Your task to perform on an android device: Go to battery settings Image 0: 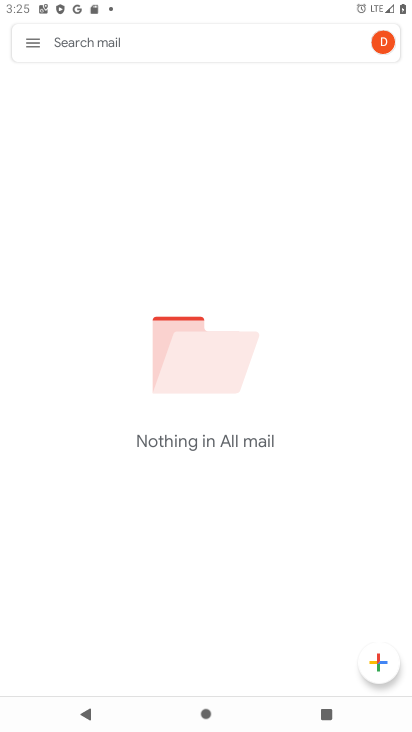
Step 0: press home button
Your task to perform on an android device: Go to battery settings Image 1: 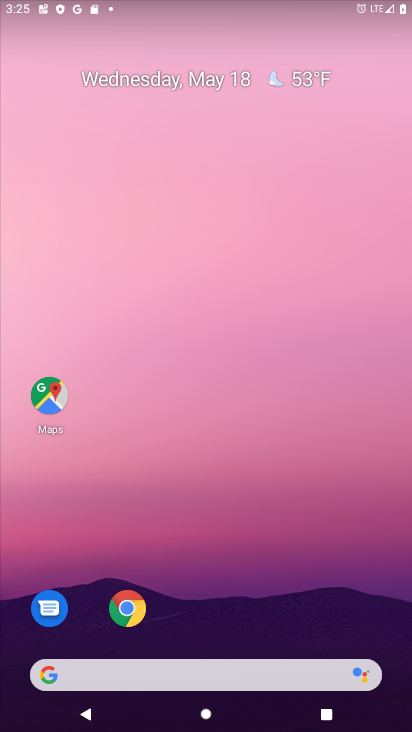
Step 1: drag from (270, 625) to (252, 12)
Your task to perform on an android device: Go to battery settings Image 2: 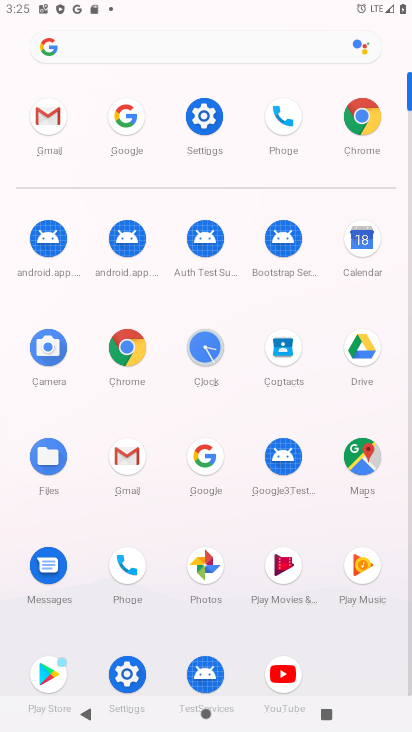
Step 2: click (198, 135)
Your task to perform on an android device: Go to battery settings Image 3: 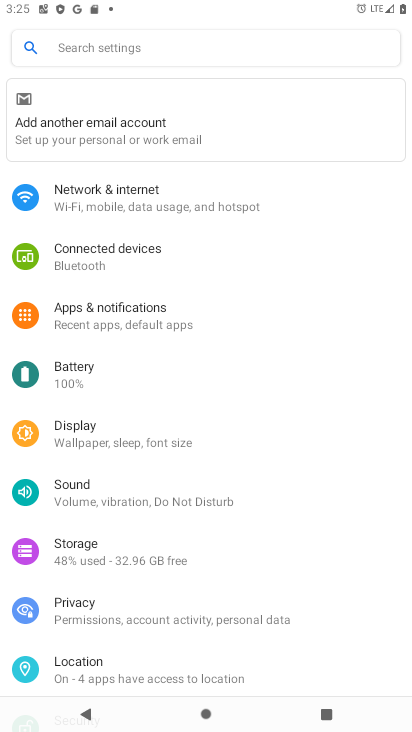
Step 3: click (71, 365)
Your task to perform on an android device: Go to battery settings Image 4: 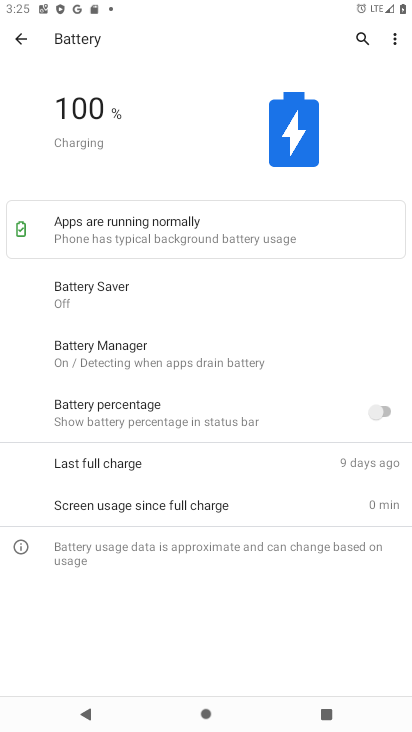
Step 4: task complete